Your task to perform on an android device: Check the weather Image 0: 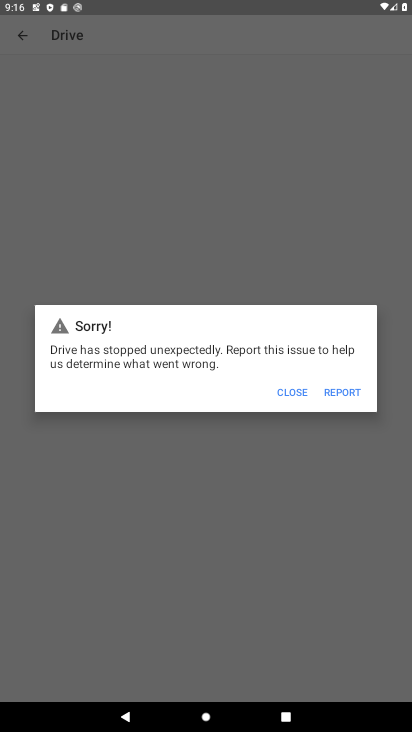
Step 0: press home button
Your task to perform on an android device: Check the weather Image 1: 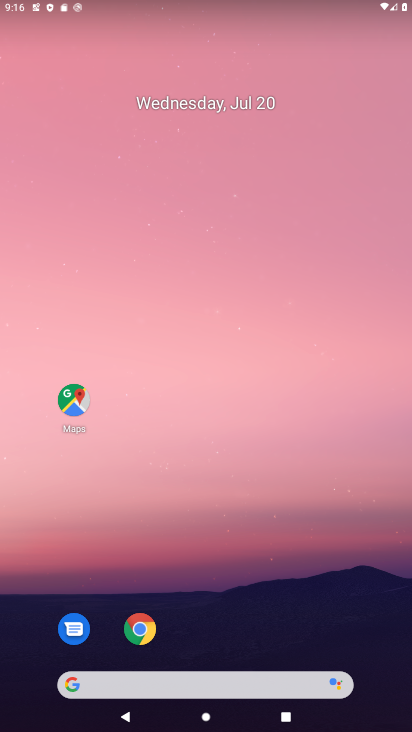
Step 1: click (144, 631)
Your task to perform on an android device: Check the weather Image 2: 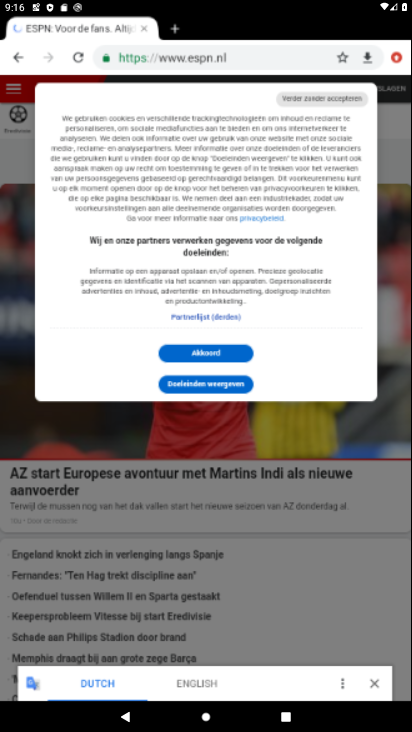
Step 2: click (163, 62)
Your task to perform on an android device: Check the weather Image 3: 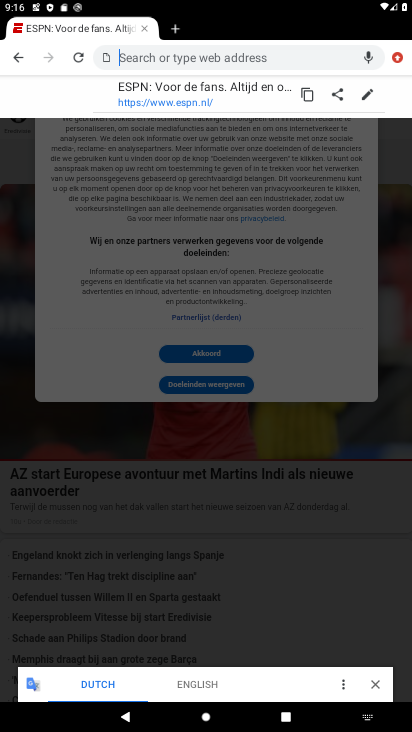
Step 3: type "Check the weather"
Your task to perform on an android device: Check the weather Image 4: 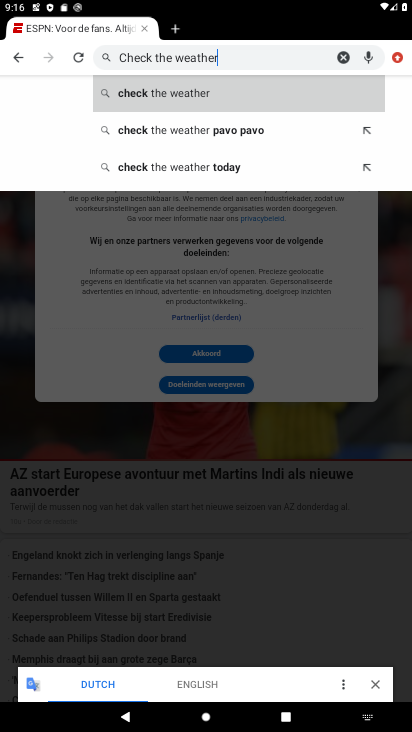
Step 4: type ""
Your task to perform on an android device: Check the weather Image 5: 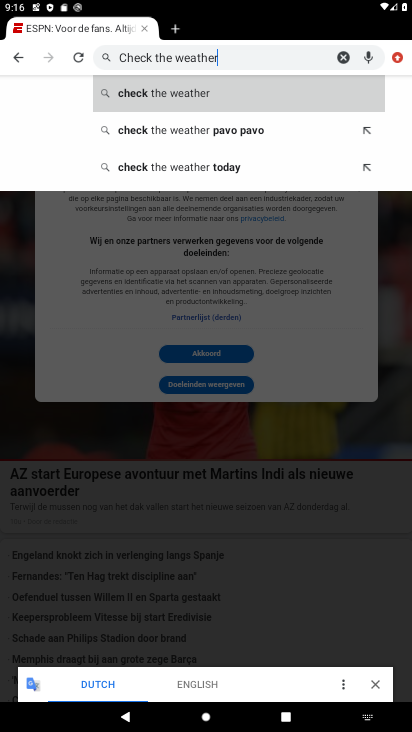
Step 5: click (188, 96)
Your task to perform on an android device: Check the weather Image 6: 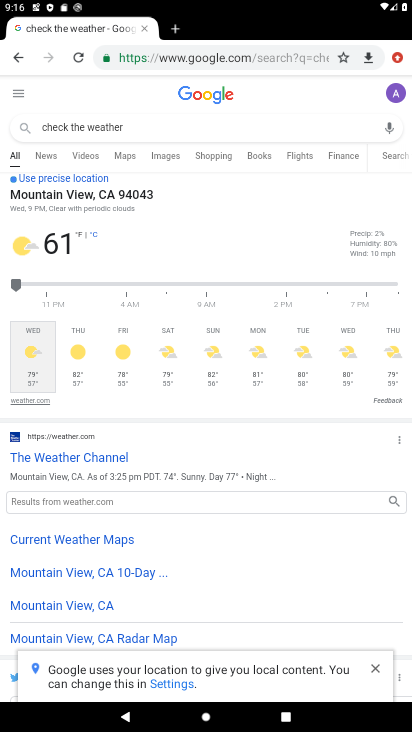
Step 6: task complete